Your task to perform on an android device: toggle pop-ups in chrome Image 0: 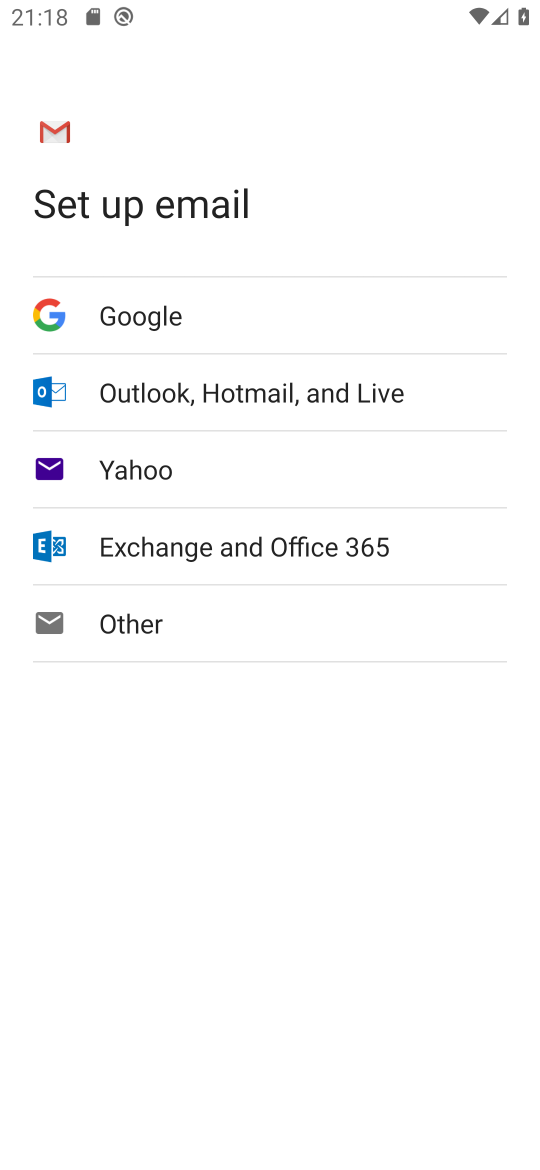
Step 0: press home button
Your task to perform on an android device: toggle pop-ups in chrome Image 1: 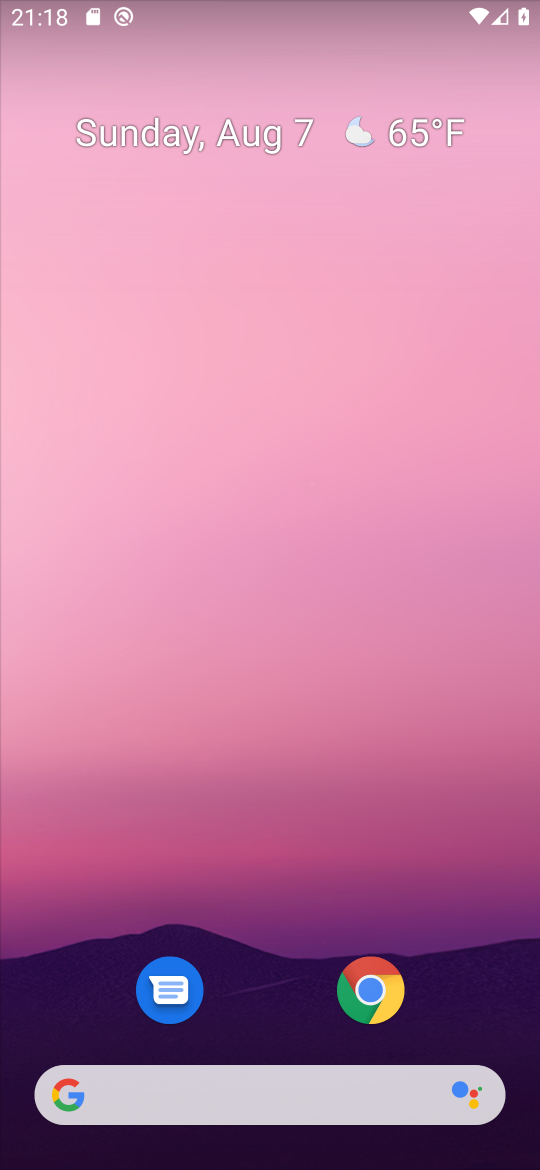
Step 1: click (374, 993)
Your task to perform on an android device: toggle pop-ups in chrome Image 2: 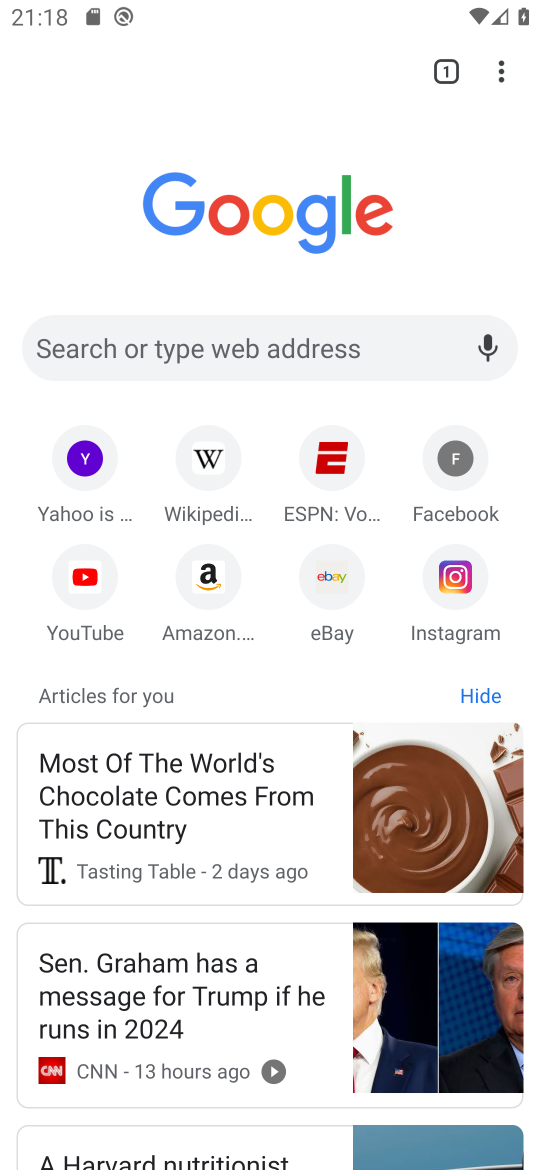
Step 2: click (493, 61)
Your task to perform on an android device: toggle pop-ups in chrome Image 3: 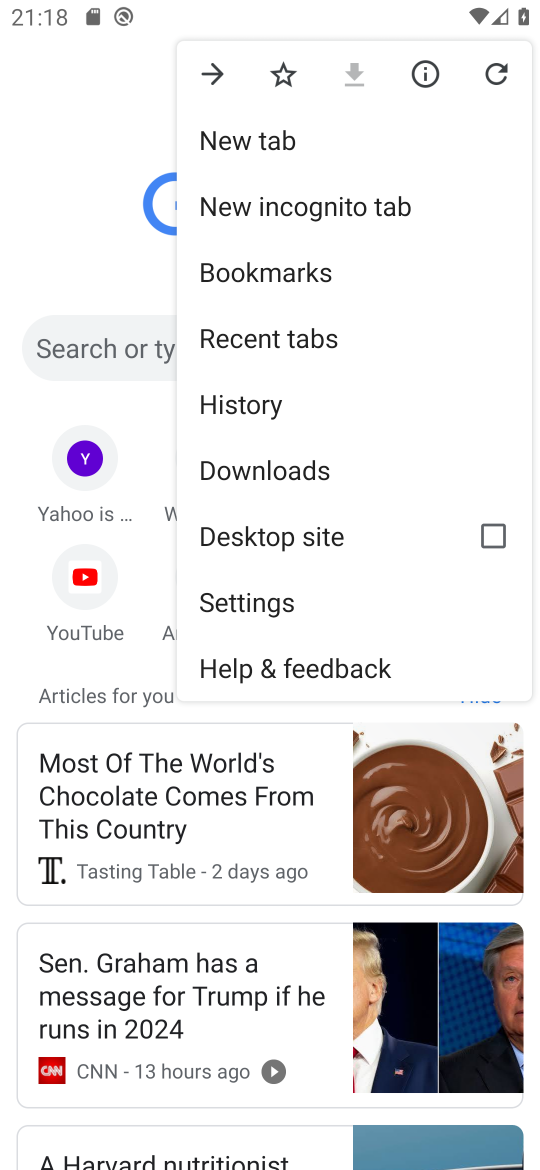
Step 3: click (246, 597)
Your task to perform on an android device: toggle pop-ups in chrome Image 4: 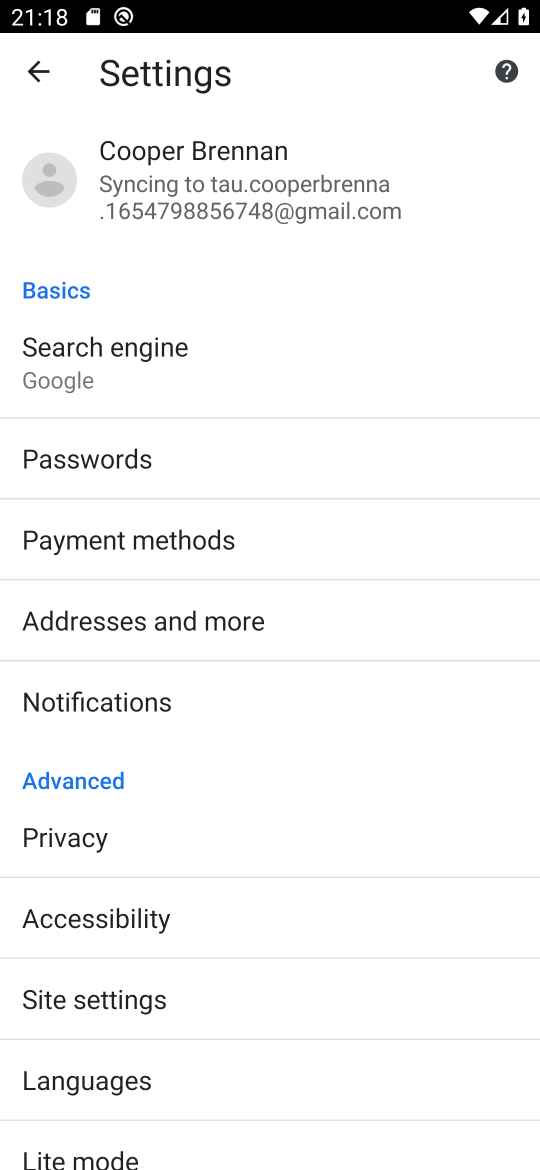
Step 4: click (132, 990)
Your task to perform on an android device: toggle pop-ups in chrome Image 5: 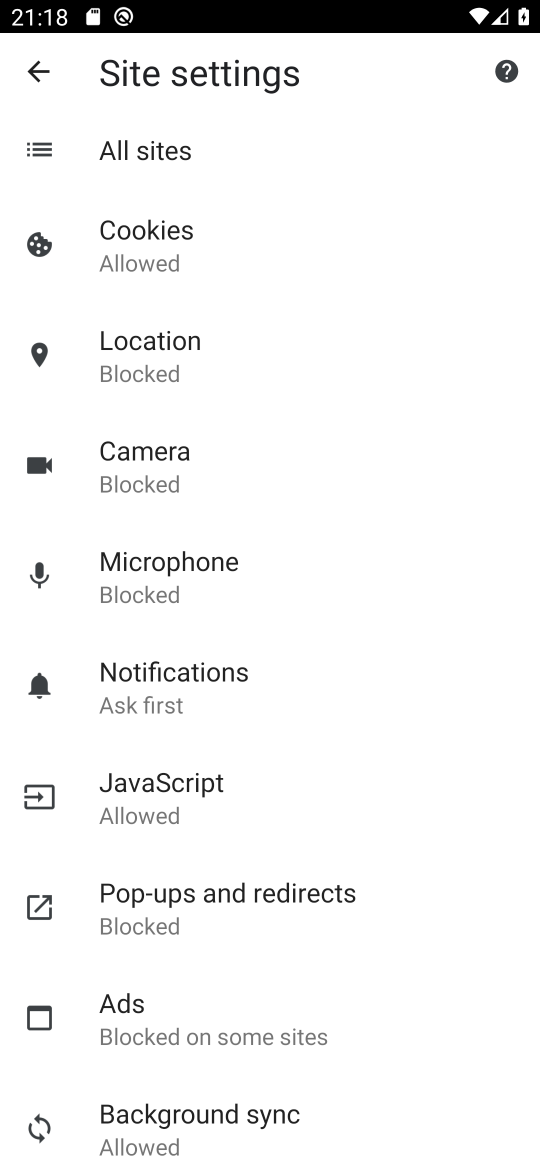
Step 5: click (243, 891)
Your task to perform on an android device: toggle pop-ups in chrome Image 6: 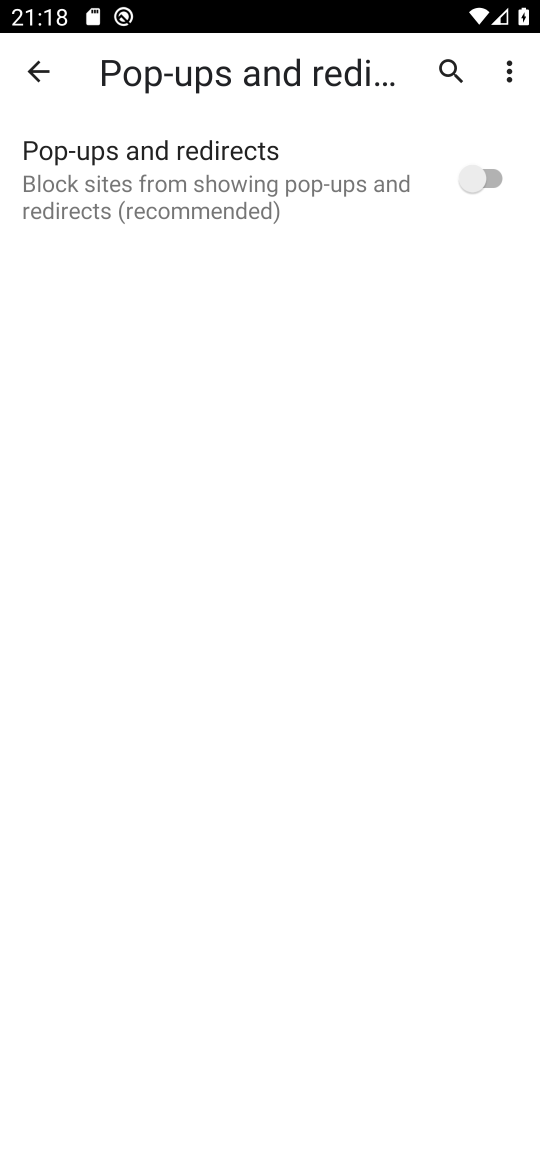
Step 6: click (481, 175)
Your task to perform on an android device: toggle pop-ups in chrome Image 7: 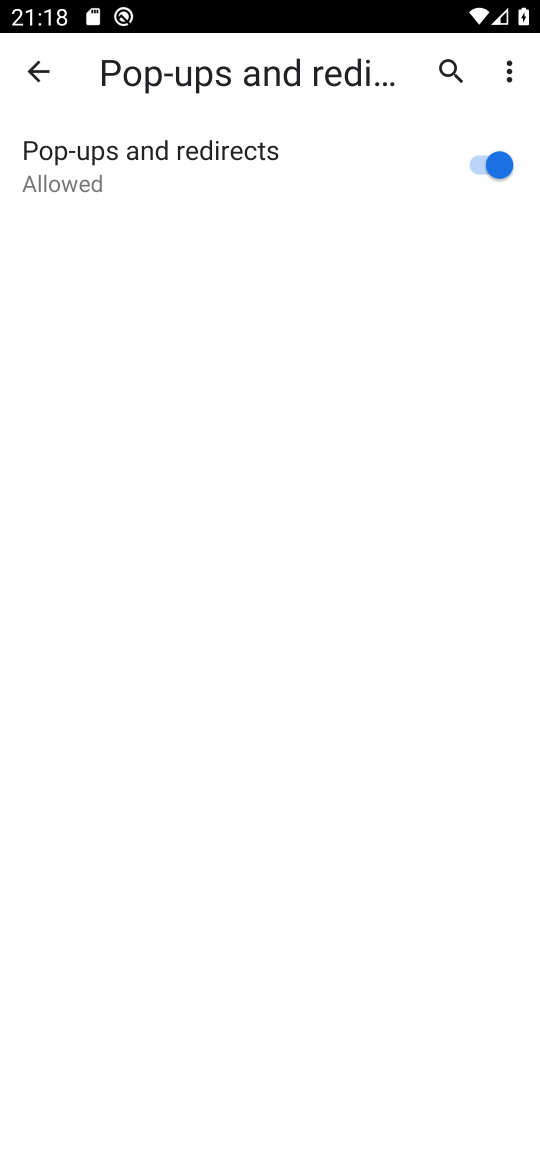
Step 7: task complete